Your task to perform on an android device: turn on airplane mode Image 0: 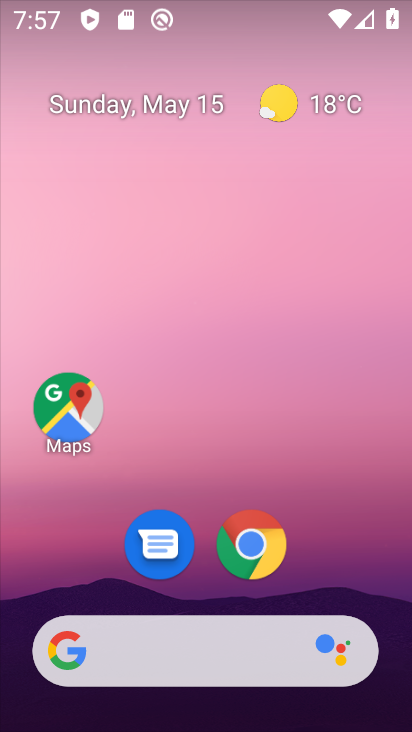
Step 0: drag from (334, 578) to (274, 105)
Your task to perform on an android device: turn on airplane mode Image 1: 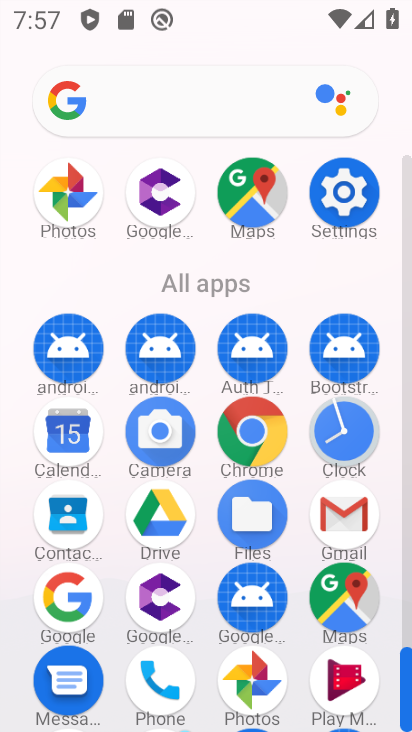
Step 1: click (347, 192)
Your task to perform on an android device: turn on airplane mode Image 2: 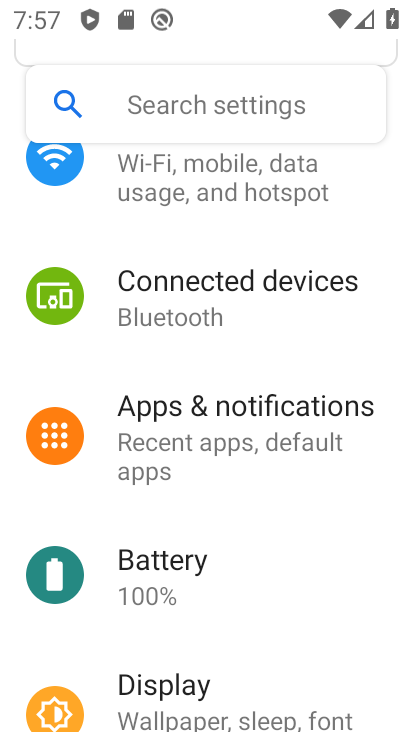
Step 2: drag from (349, 201) to (351, 327)
Your task to perform on an android device: turn on airplane mode Image 3: 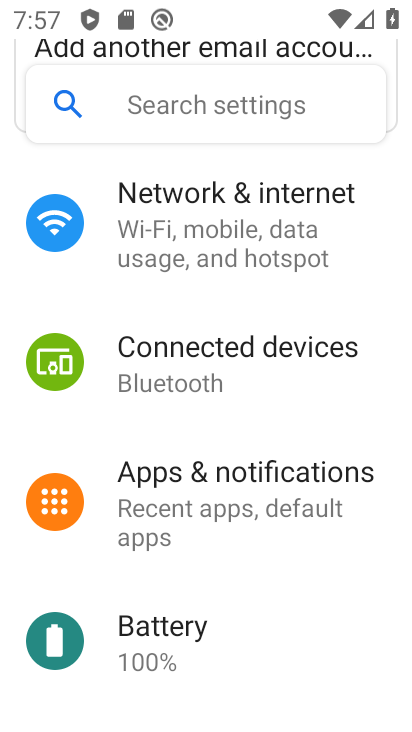
Step 3: click (275, 227)
Your task to perform on an android device: turn on airplane mode Image 4: 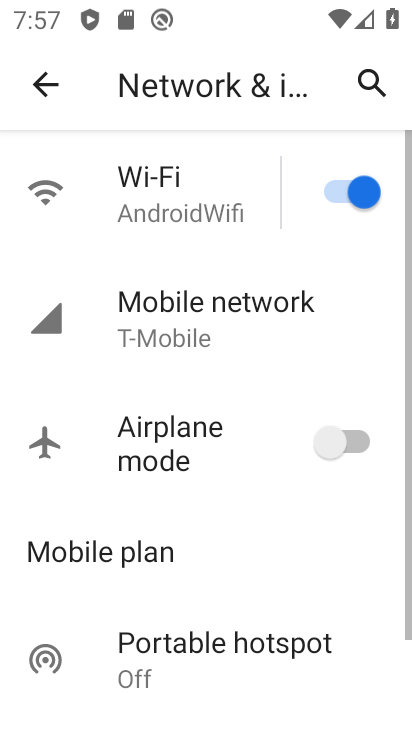
Step 4: click (335, 433)
Your task to perform on an android device: turn on airplane mode Image 5: 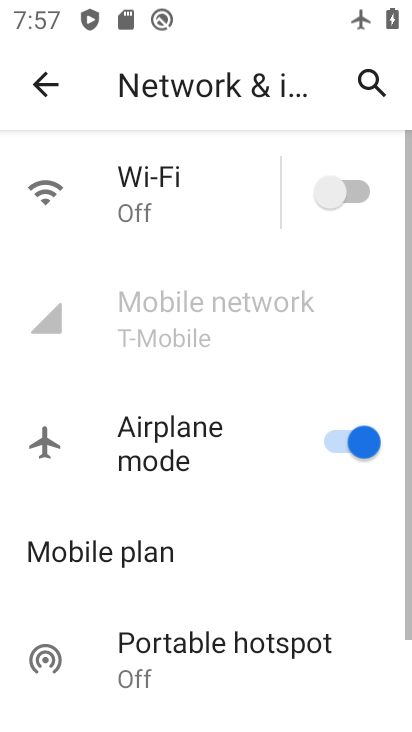
Step 5: task complete